Your task to perform on an android device: Open the calendar app, open the side menu, and click the "Day" option Image 0: 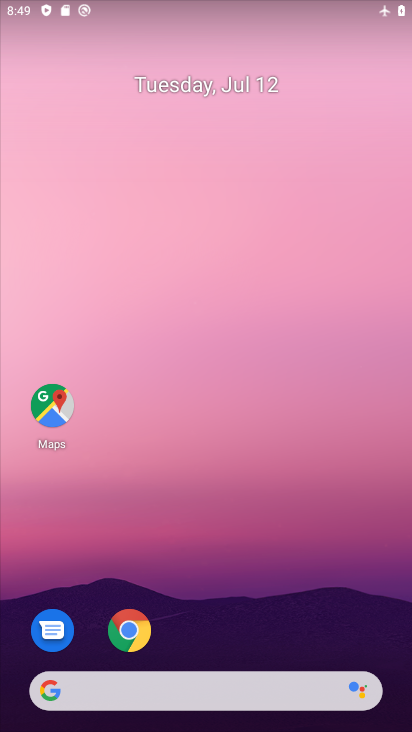
Step 0: press home button
Your task to perform on an android device: Open the calendar app, open the side menu, and click the "Day" option Image 1: 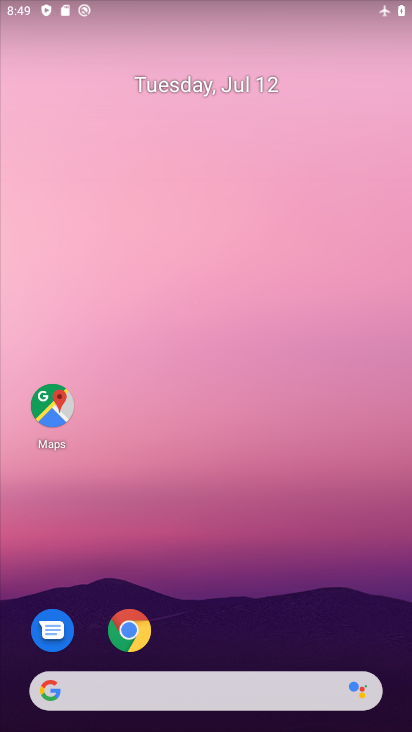
Step 1: drag from (328, 582) to (328, 66)
Your task to perform on an android device: Open the calendar app, open the side menu, and click the "Day" option Image 2: 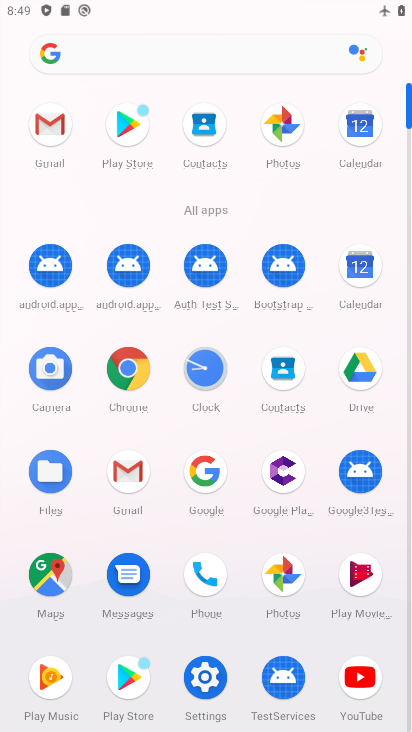
Step 2: click (355, 264)
Your task to perform on an android device: Open the calendar app, open the side menu, and click the "Day" option Image 3: 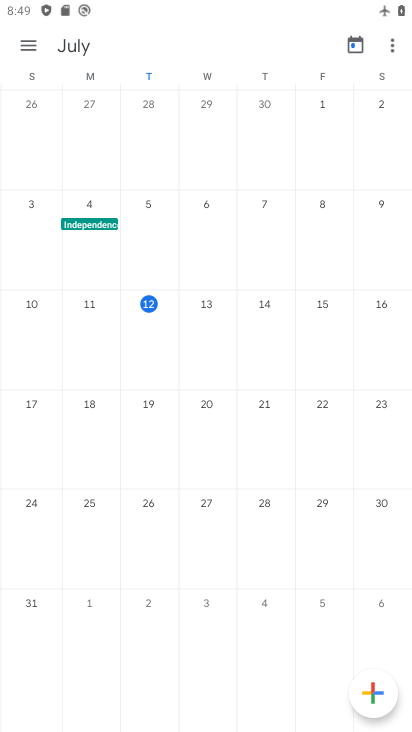
Step 3: click (203, 298)
Your task to perform on an android device: Open the calendar app, open the side menu, and click the "Day" option Image 4: 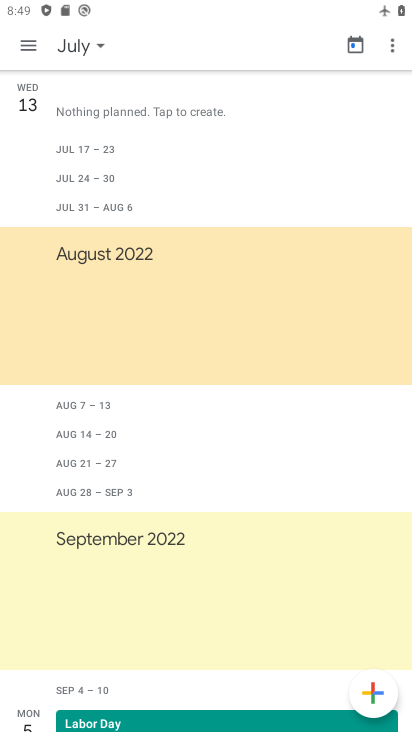
Step 4: click (19, 42)
Your task to perform on an android device: Open the calendar app, open the side menu, and click the "Day" option Image 5: 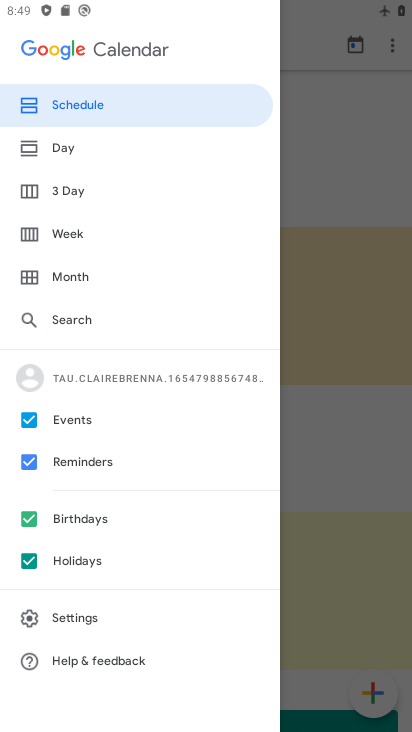
Step 5: click (69, 147)
Your task to perform on an android device: Open the calendar app, open the side menu, and click the "Day" option Image 6: 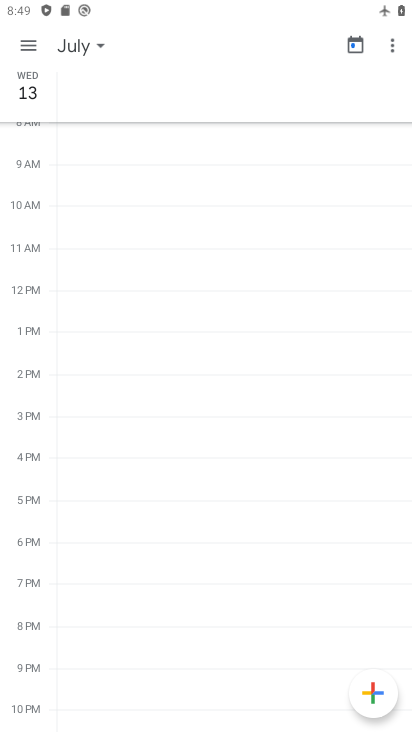
Step 6: task complete